Your task to perform on an android device: Open sound settings Image 0: 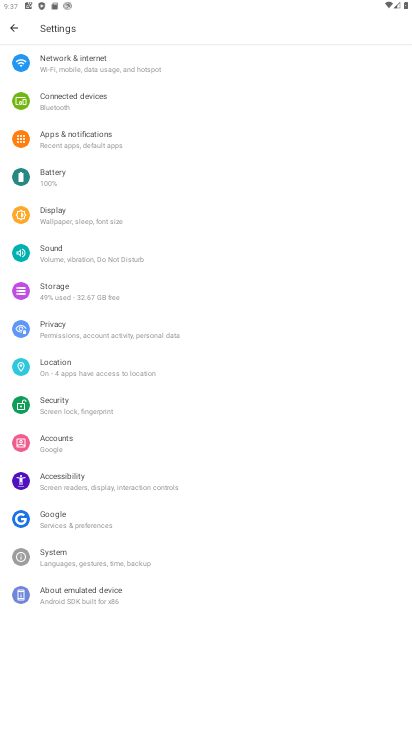
Step 0: click (124, 268)
Your task to perform on an android device: Open sound settings Image 1: 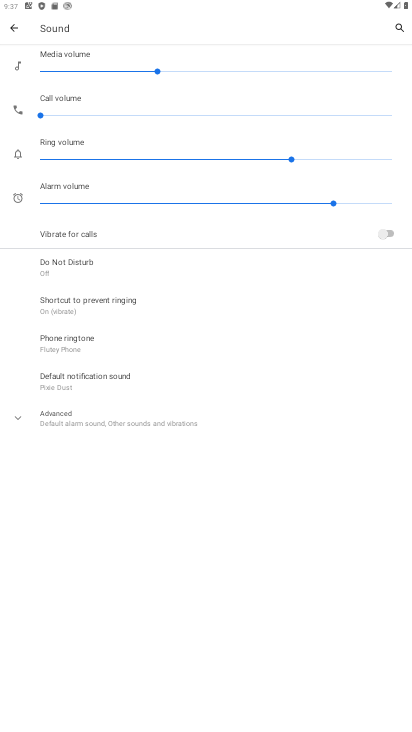
Step 1: task complete